Your task to perform on an android device: change notification settings in the gmail app Image 0: 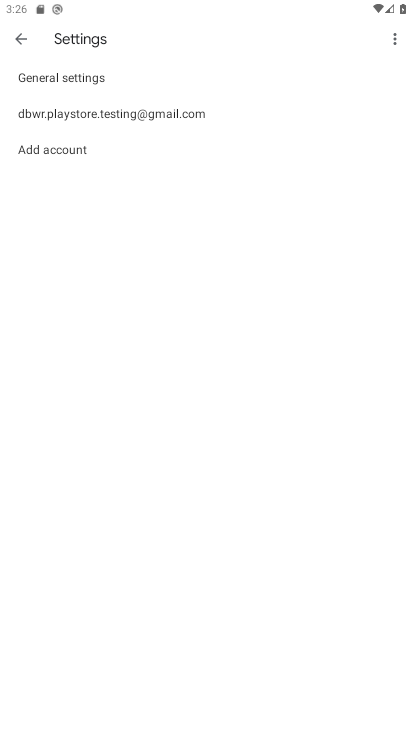
Step 0: press home button
Your task to perform on an android device: change notification settings in the gmail app Image 1: 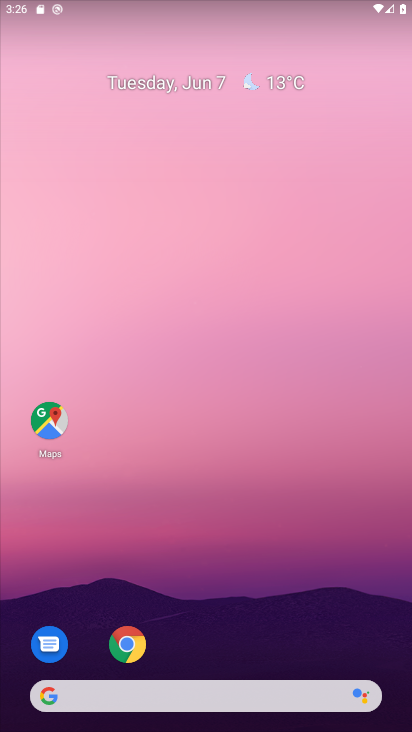
Step 1: drag from (327, 586) to (328, 233)
Your task to perform on an android device: change notification settings in the gmail app Image 2: 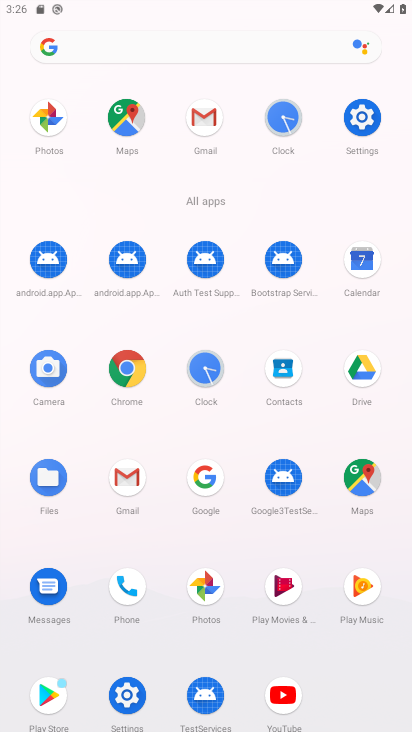
Step 2: click (129, 480)
Your task to perform on an android device: change notification settings in the gmail app Image 3: 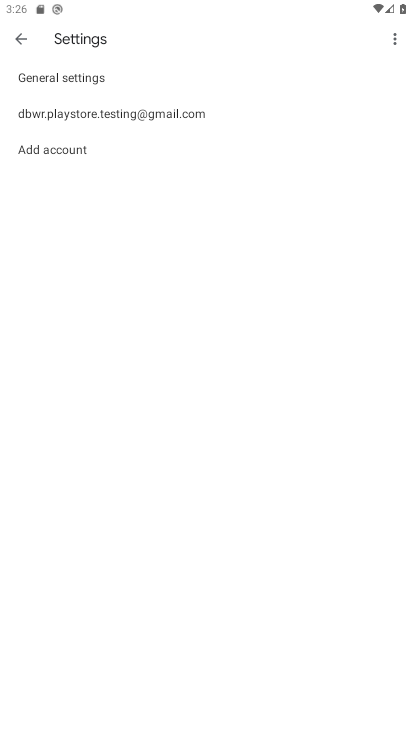
Step 3: click (182, 116)
Your task to perform on an android device: change notification settings in the gmail app Image 4: 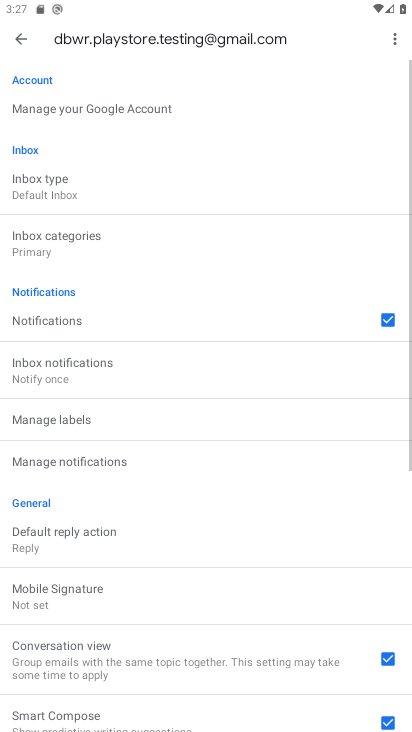
Step 4: drag from (264, 338) to (266, 274)
Your task to perform on an android device: change notification settings in the gmail app Image 5: 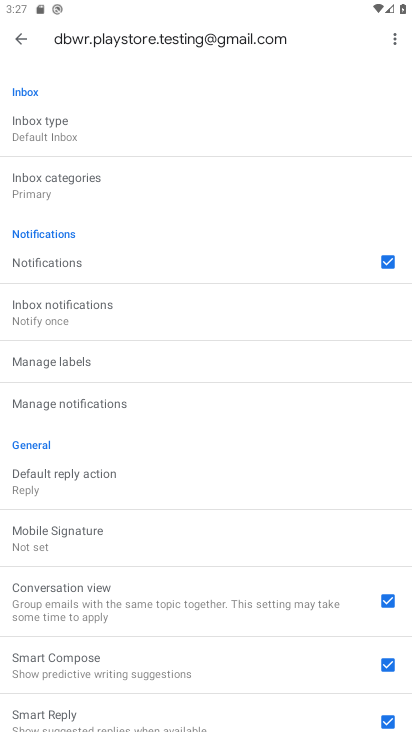
Step 5: drag from (271, 393) to (272, 336)
Your task to perform on an android device: change notification settings in the gmail app Image 6: 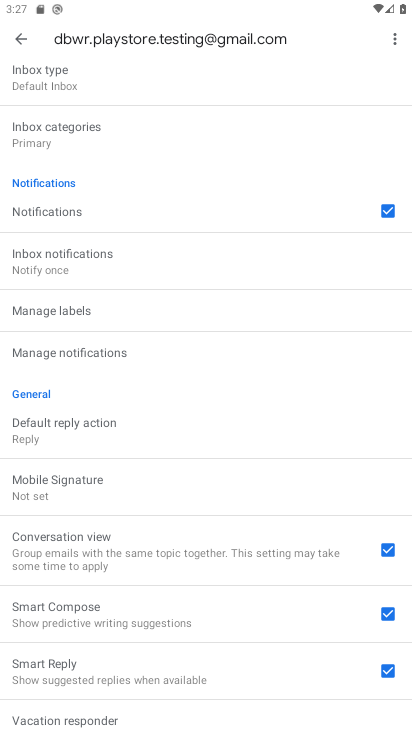
Step 6: drag from (285, 415) to (291, 354)
Your task to perform on an android device: change notification settings in the gmail app Image 7: 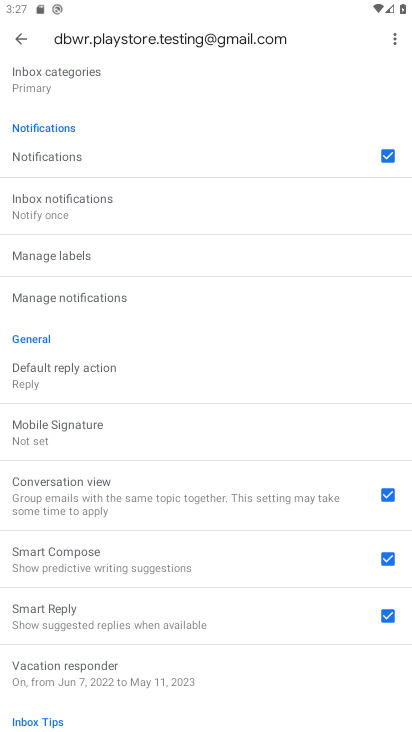
Step 7: drag from (290, 458) to (287, 380)
Your task to perform on an android device: change notification settings in the gmail app Image 8: 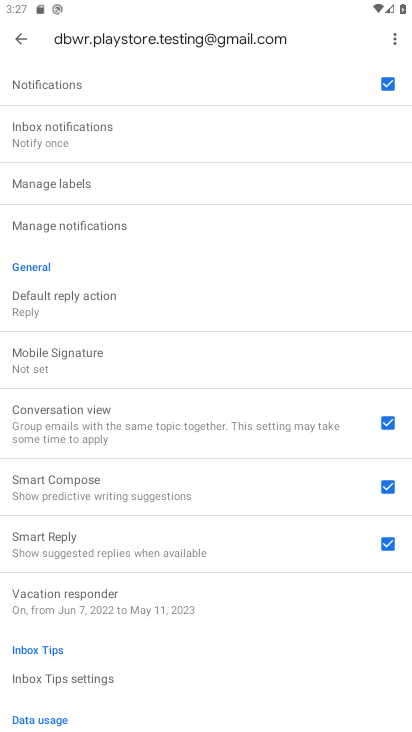
Step 8: drag from (276, 464) to (274, 379)
Your task to perform on an android device: change notification settings in the gmail app Image 9: 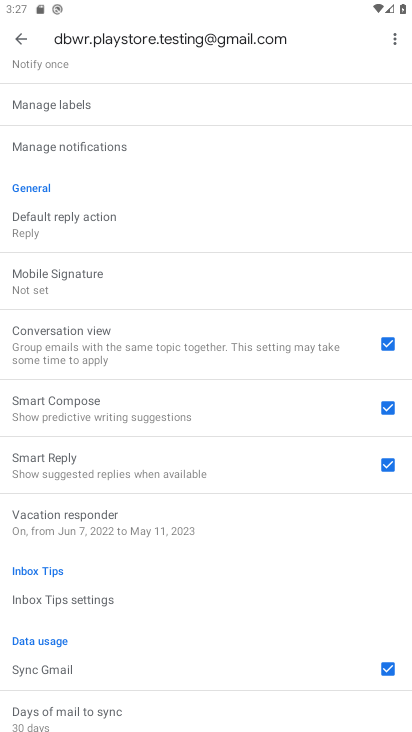
Step 9: drag from (273, 469) to (283, 389)
Your task to perform on an android device: change notification settings in the gmail app Image 10: 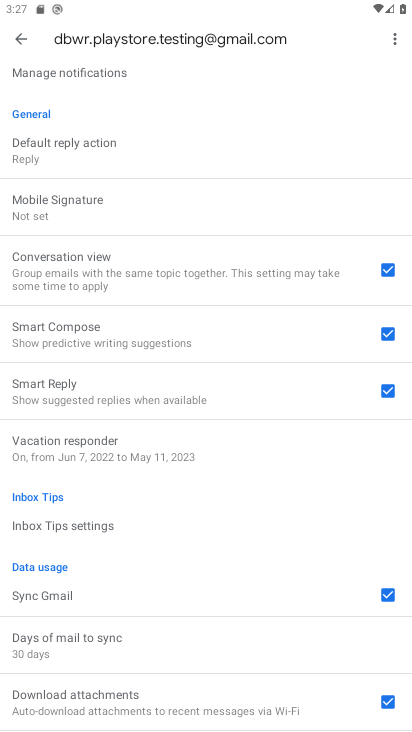
Step 10: drag from (293, 478) to (295, 397)
Your task to perform on an android device: change notification settings in the gmail app Image 11: 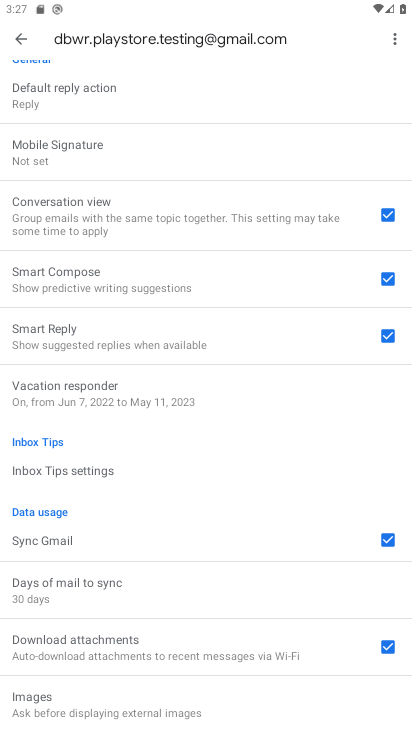
Step 11: drag from (295, 490) to (295, 407)
Your task to perform on an android device: change notification settings in the gmail app Image 12: 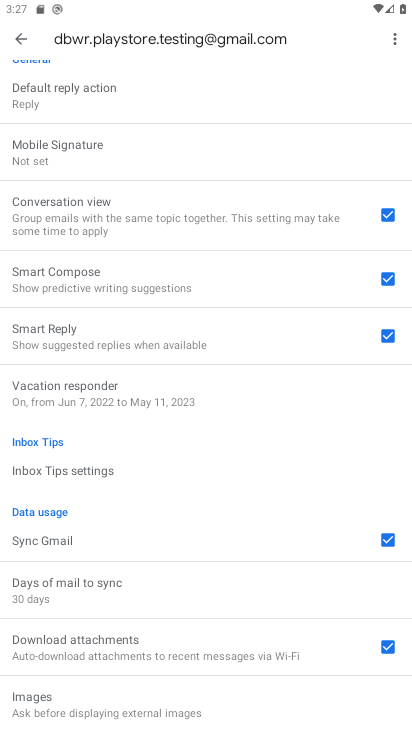
Step 12: drag from (295, 351) to (292, 436)
Your task to perform on an android device: change notification settings in the gmail app Image 13: 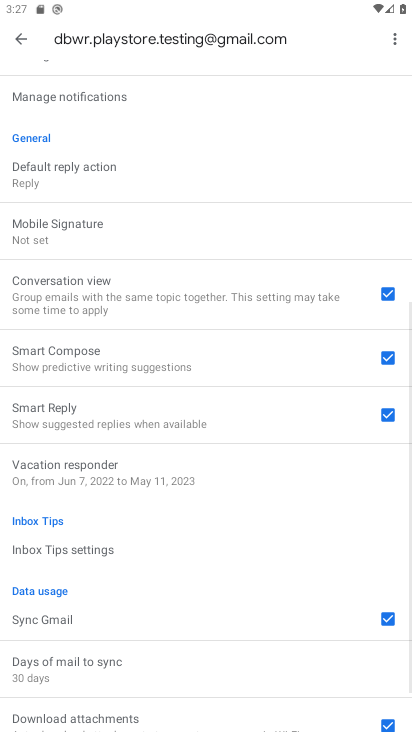
Step 13: drag from (292, 335) to (290, 433)
Your task to perform on an android device: change notification settings in the gmail app Image 14: 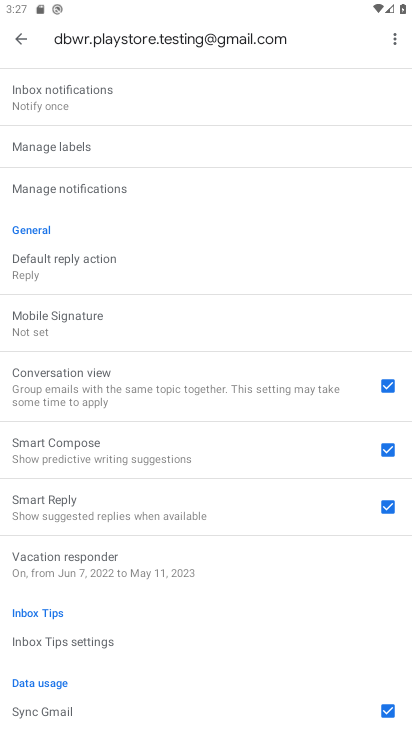
Step 14: drag from (290, 341) to (291, 440)
Your task to perform on an android device: change notification settings in the gmail app Image 15: 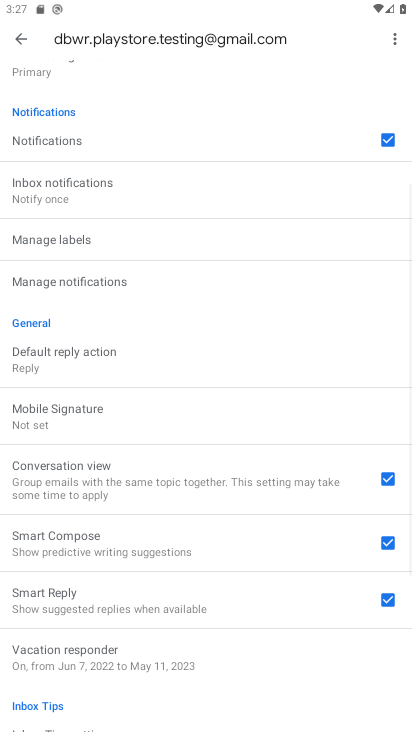
Step 15: drag from (293, 330) to (294, 421)
Your task to perform on an android device: change notification settings in the gmail app Image 16: 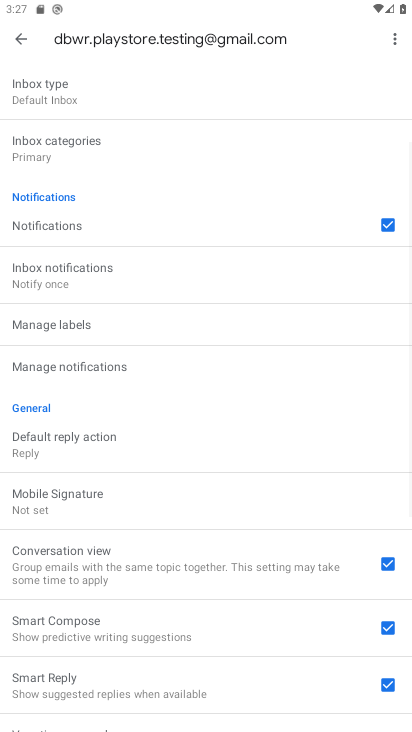
Step 16: drag from (297, 311) to (296, 399)
Your task to perform on an android device: change notification settings in the gmail app Image 17: 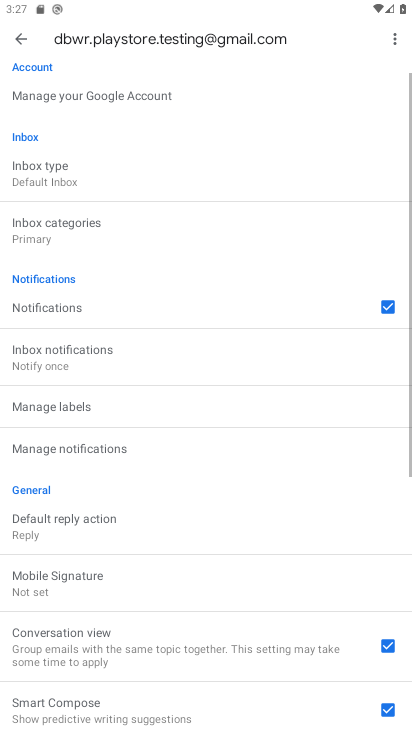
Step 17: drag from (289, 333) to (289, 409)
Your task to perform on an android device: change notification settings in the gmail app Image 18: 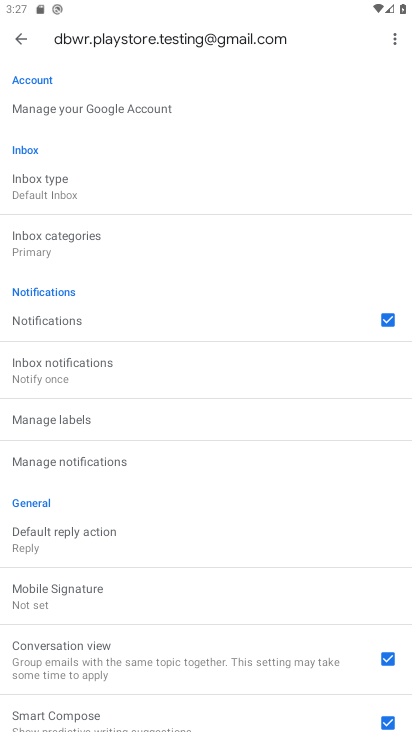
Step 18: drag from (277, 303) to (277, 434)
Your task to perform on an android device: change notification settings in the gmail app Image 19: 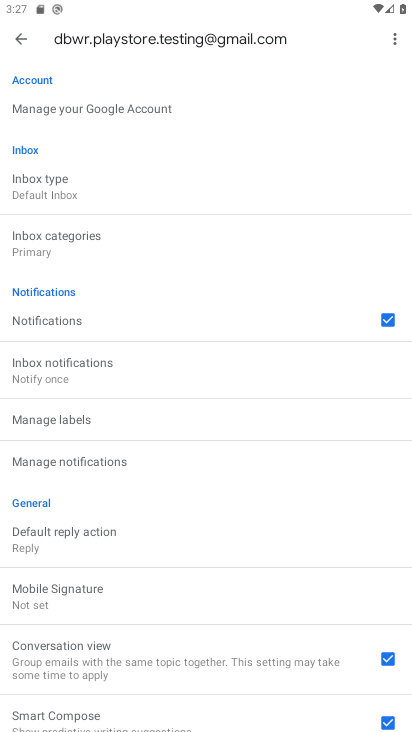
Step 19: click (148, 458)
Your task to perform on an android device: change notification settings in the gmail app Image 20: 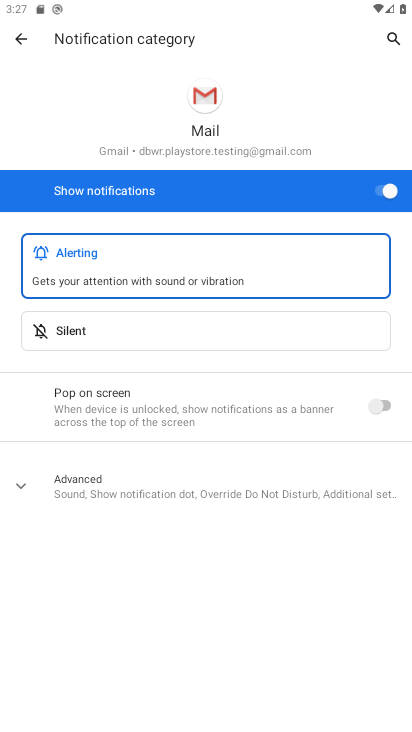
Step 20: click (387, 201)
Your task to perform on an android device: change notification settings in the gmail app Image 21: 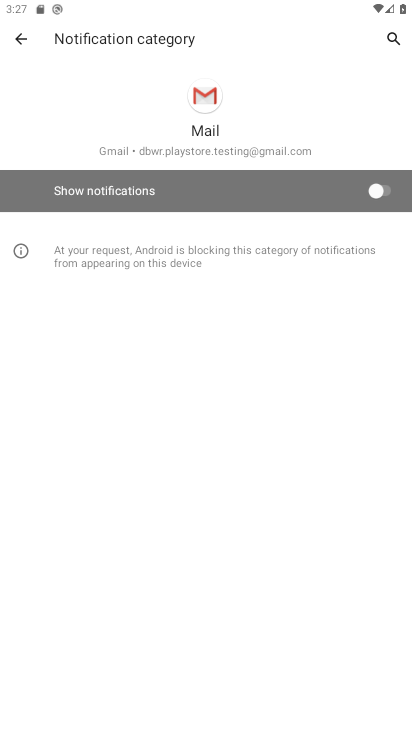
Step 21: task complete